Your task to perform on an android device: find photos in the google photos app Image 0: 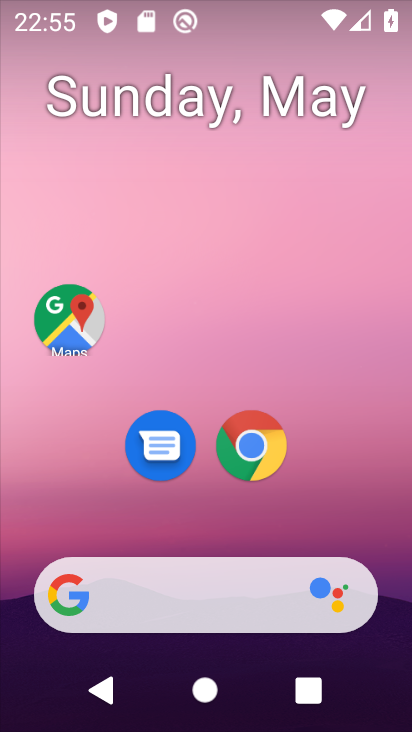
Step 0: drag from (318, 485) to (373, 58)
Your task to perform on an android device: find photos in the google photos app Image 1: 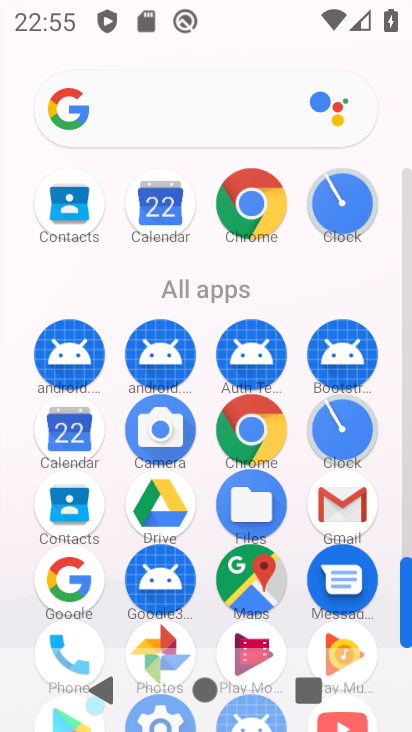
Step 1: drag from (311, 258) to (350, 21)
Your task to perform on an android device: find photos in the google photos app Image 2: 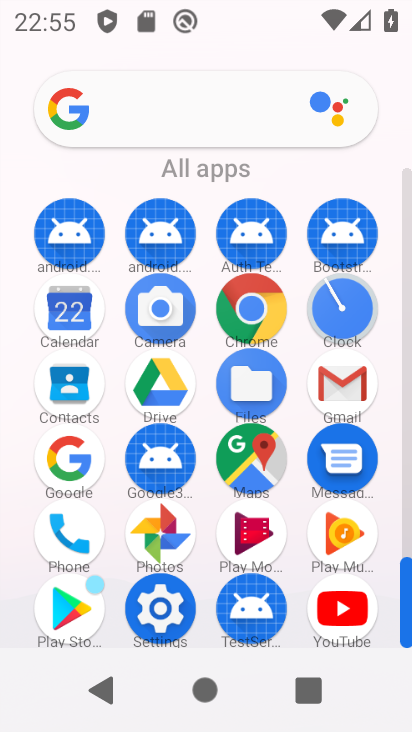
Step 2: click (171, 525)
Your task to perform on an android device: find photos in the google photos app Image 3: 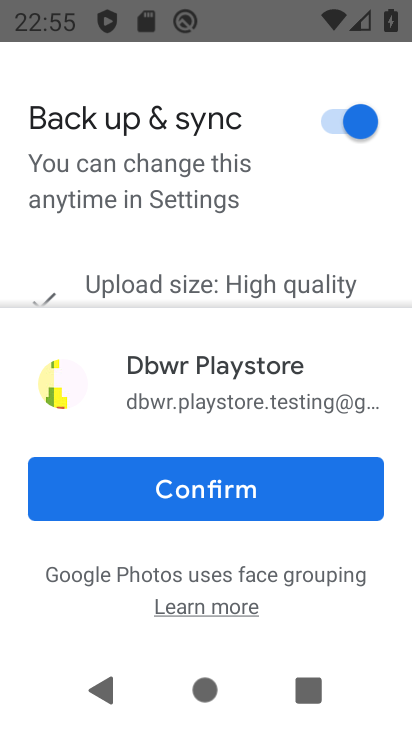
Step 3: click (291, 501)
Your task to perform on an android device: find photos in the google photos app Image 4: 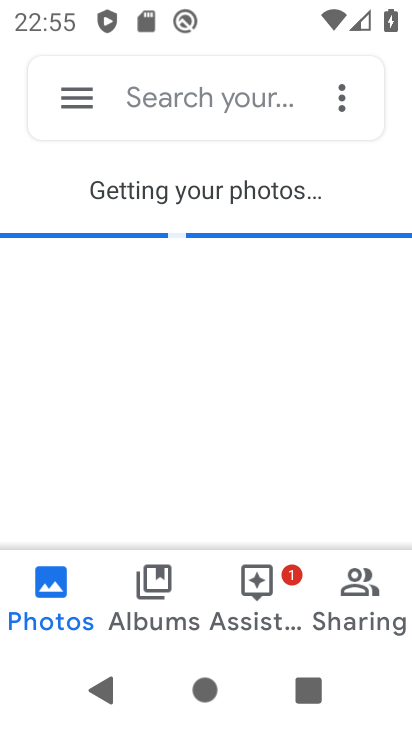
Step 4: click (52, 591)
Your task to perform on an android device: find photos in the google photos app Image 5: 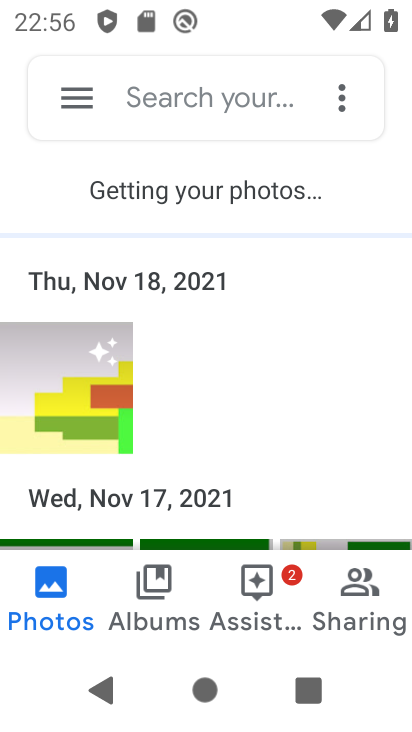
Step 5: task complete